Your task to perform on an android device: manage bookmarks in the chrome app Image 0: 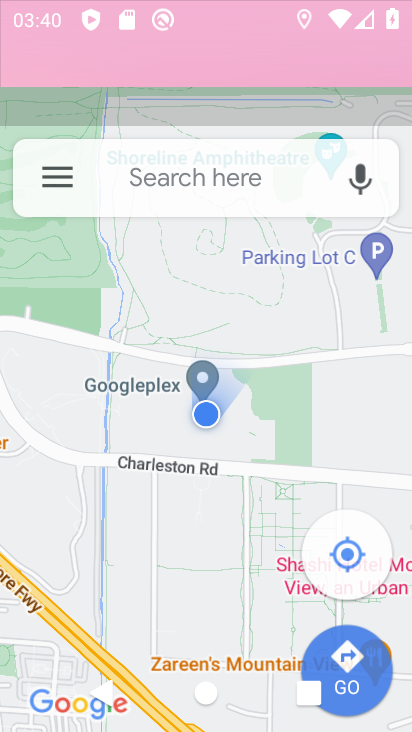
Step 0: press home button
Your task to perform on an android device: manage bookmarks in the chrome app Image 1: 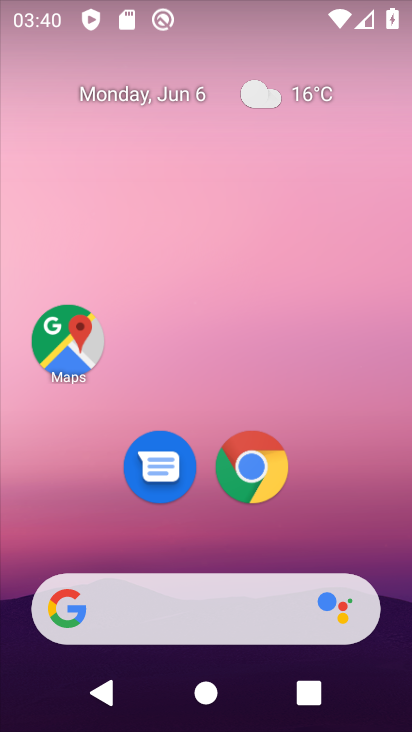
Step 1: click (255, 462)
Your task to perform on an android device: manage bookmarks in the chrome app Image 2: 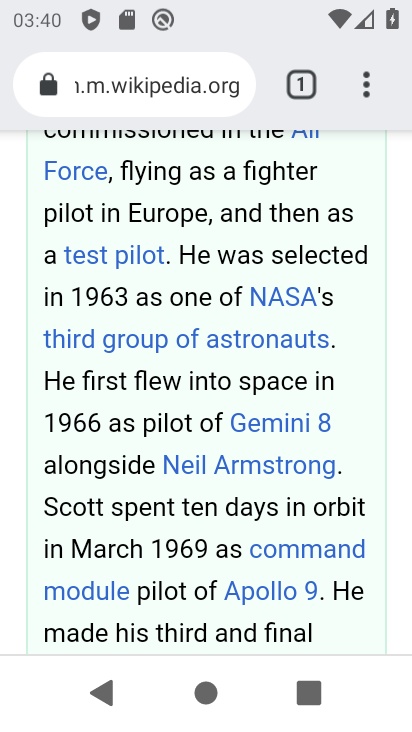
Step 2: click (367, 76)
Your task to perform on an android device: manage bookmarks in the chrome app Image 3: 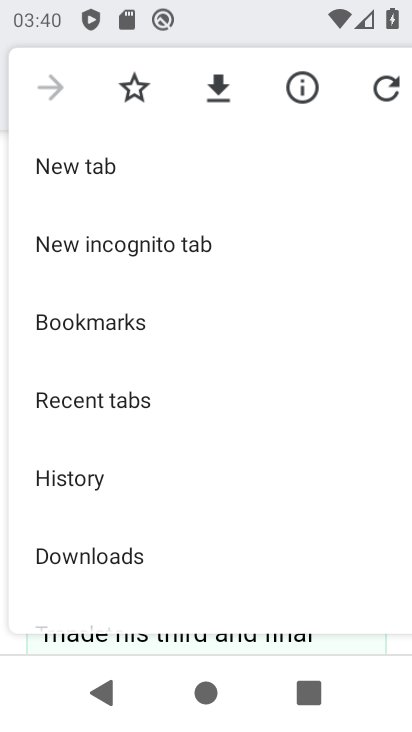
Step 3: click (152, 327)
Your task to perform on an android device: manage bookmarks in the chrome app Image 4: 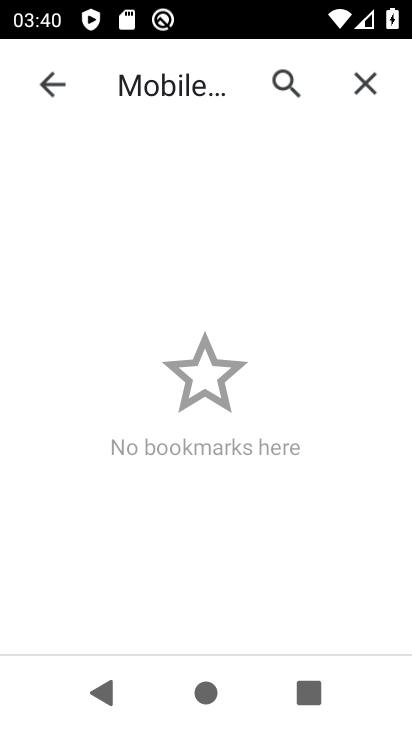
Step 4: task complete